Your task to perform on an android device: Go to Maps Image 0: 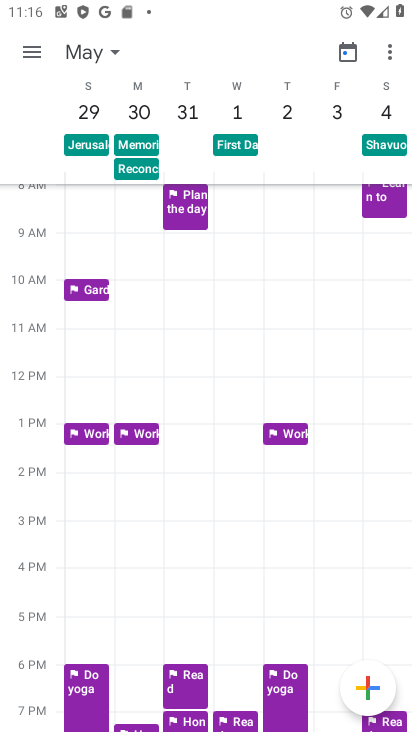
Step 0: press home button
Your task to perform on an android device: Go to Maps Image 1: 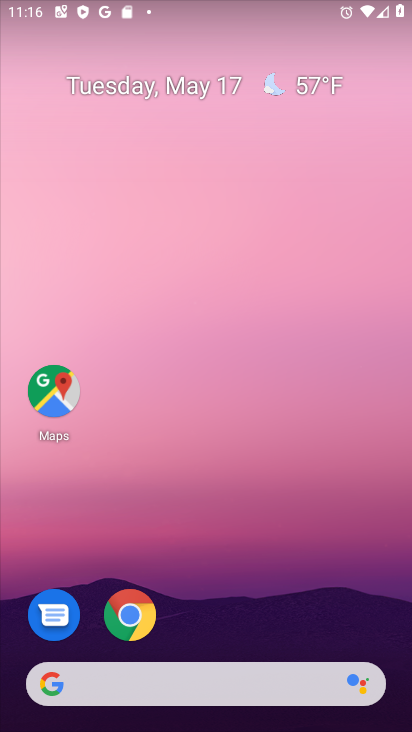
Step 1: click (55, 392)
Your task to perform on an android device: Go to Maps Image 2: 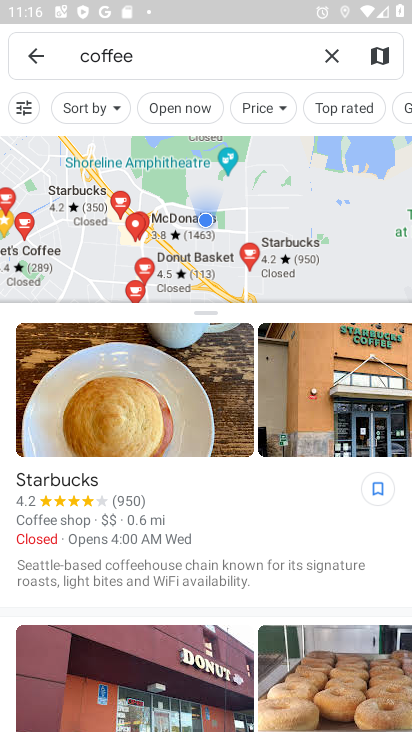
Step 2: task complete